Your task to perform on an android device: turn on showing notifications on the lock screen Image 0: 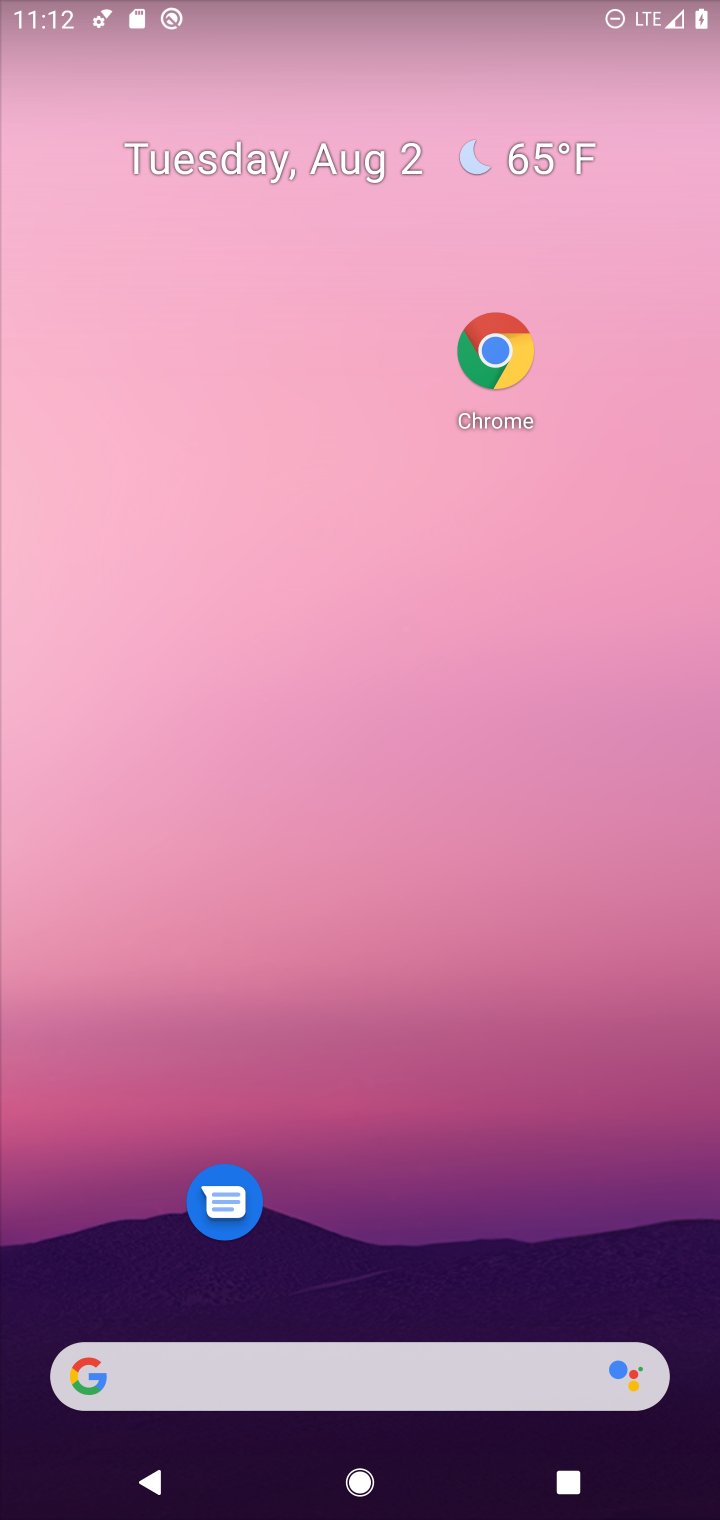
Step 0: drag from (402, 1327) to (363, 112)
Your task to perform on an android device: turn on showing notifications on the lock screen Image 1: 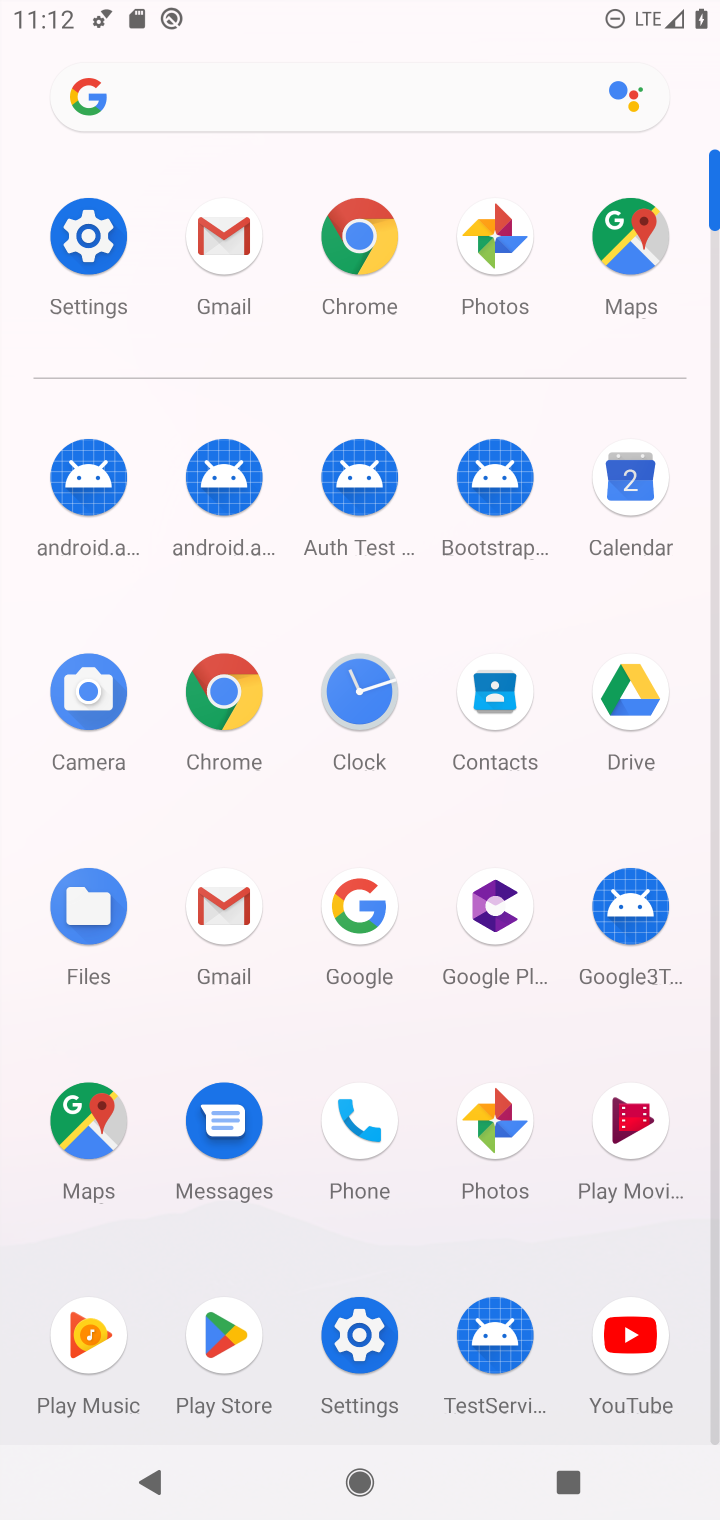
Step 1: click (91, 249)
Your task to perform on an android device: turn on showing notifications on the lock screen Image 2: 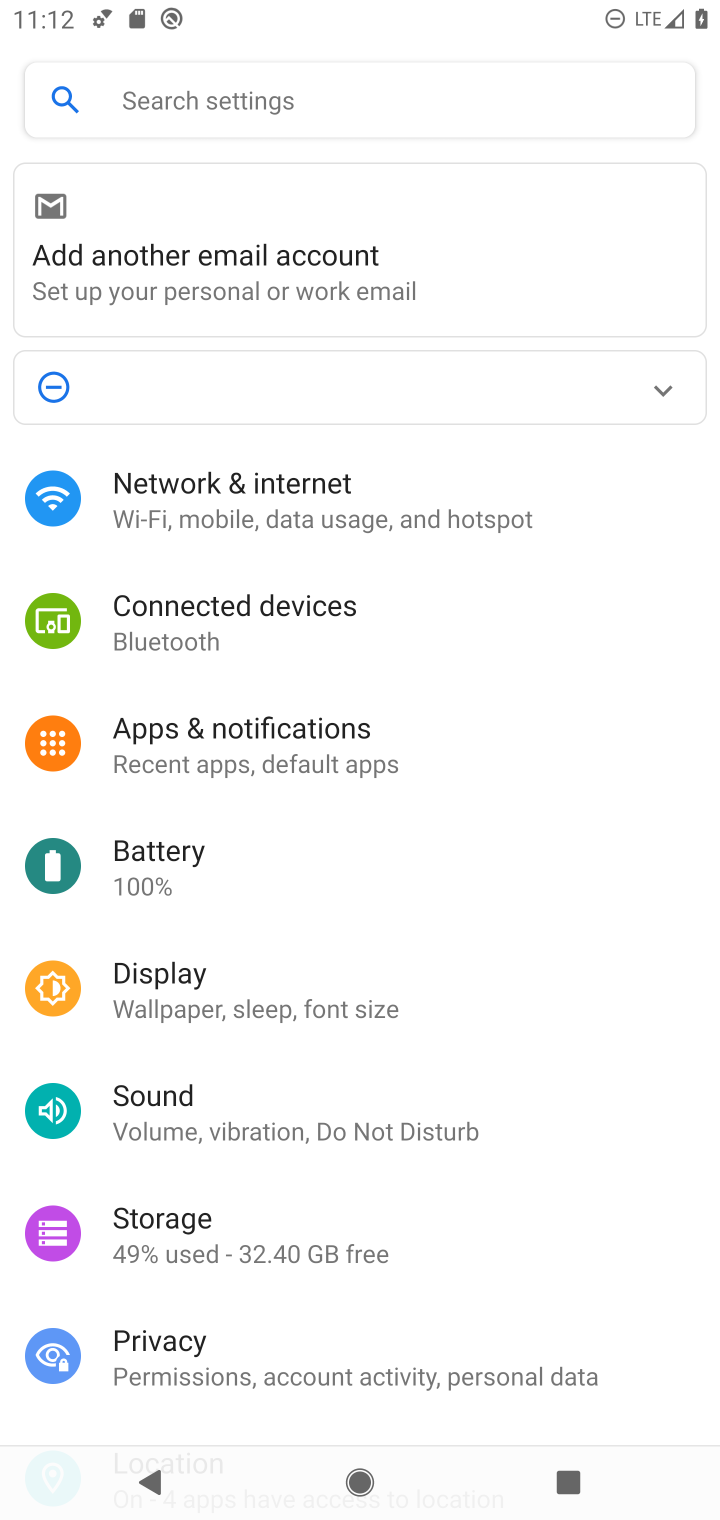
Step 2: click (277, 728)
Your task to perform on an android device: turn on showing notifications on the lock screen Image 3: 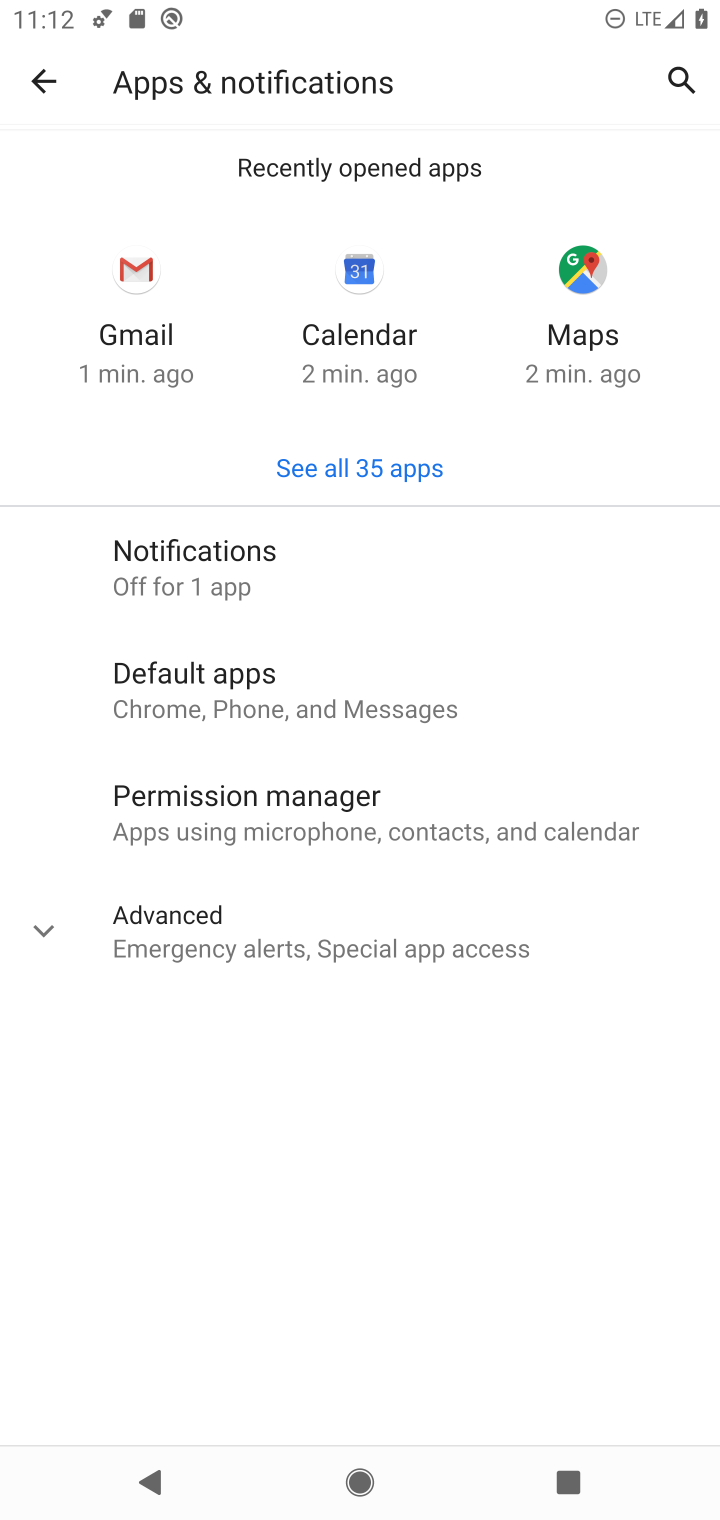
Step 3: click (170, 588)
Your task to perform on an android device: turn on showing notifications on the lock screen Image 4: 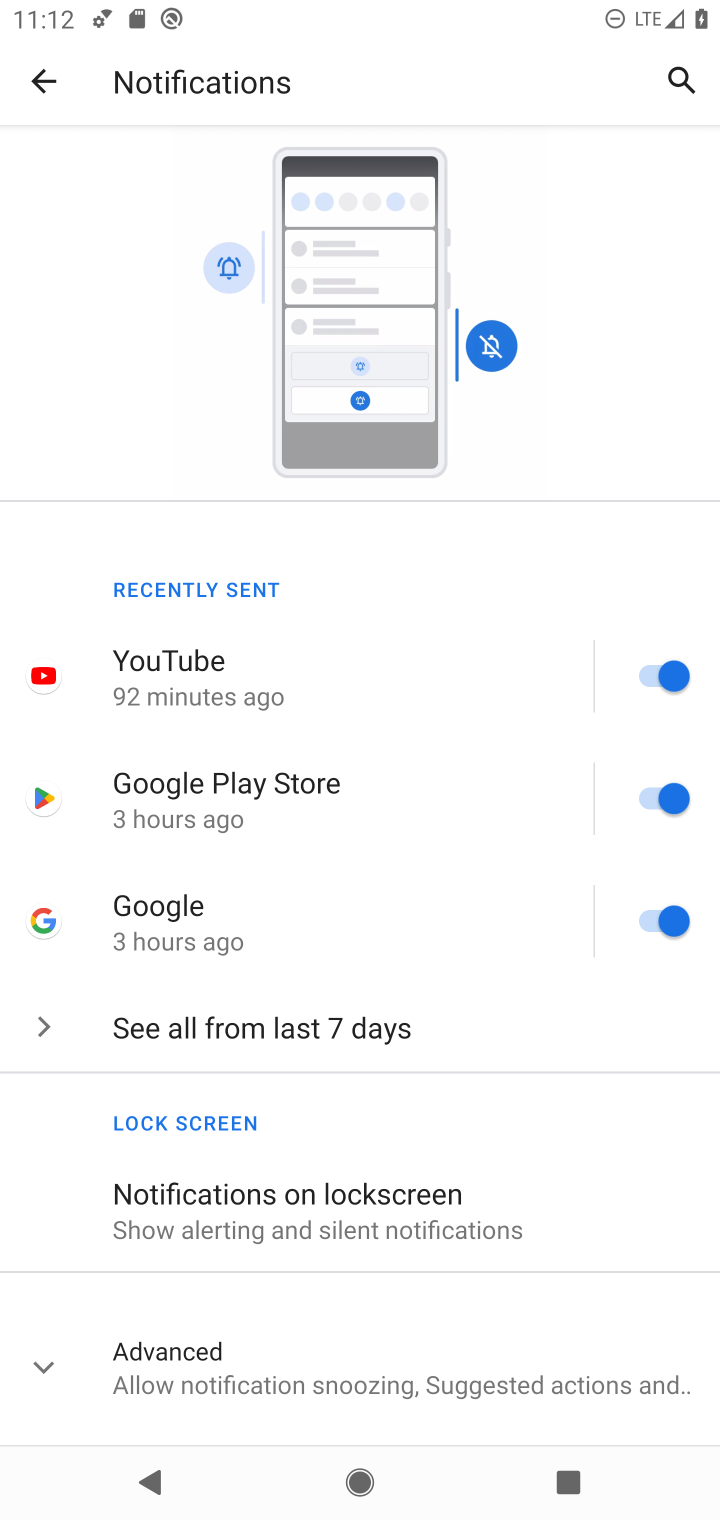
Step 4: click (137, 1231)
Your task to perform on an android device: turn on showing notifications on the lock screen Image 5: 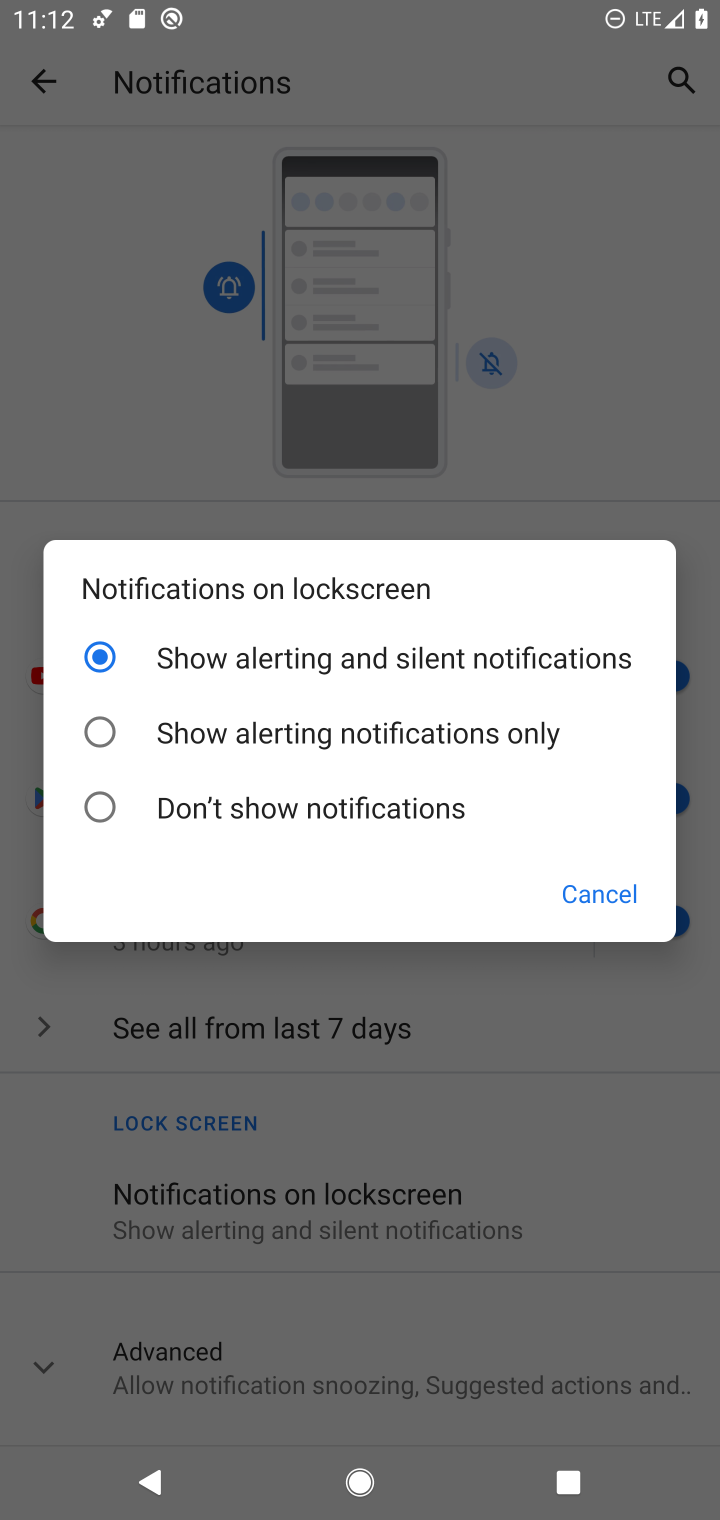
Step 5: task complete